Your task to perform on an android device: Go to Android settings Image 0: 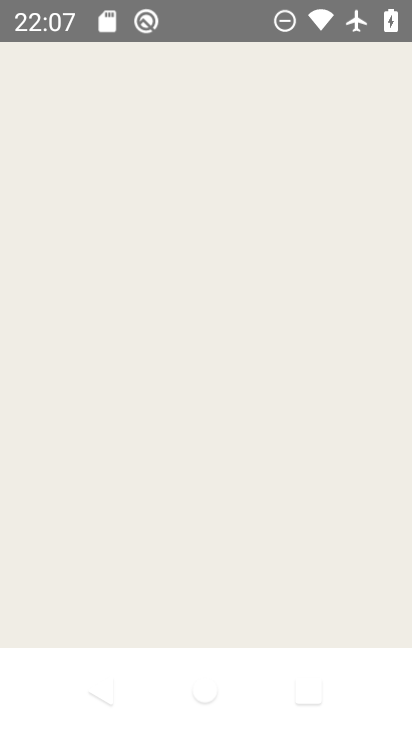
Step 0: press home button
Your task to perform on an android device: Go to Android settings Image 1: 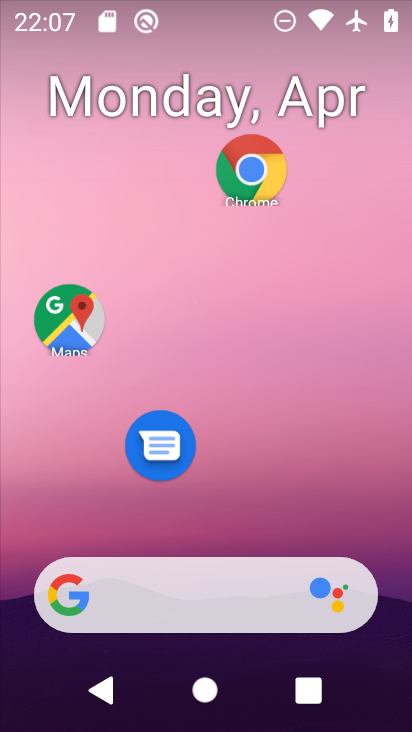
Step 1: drag from (215, 523) to (184, 115)
Your task to perform on an android device: Go to Android settings Image 2: 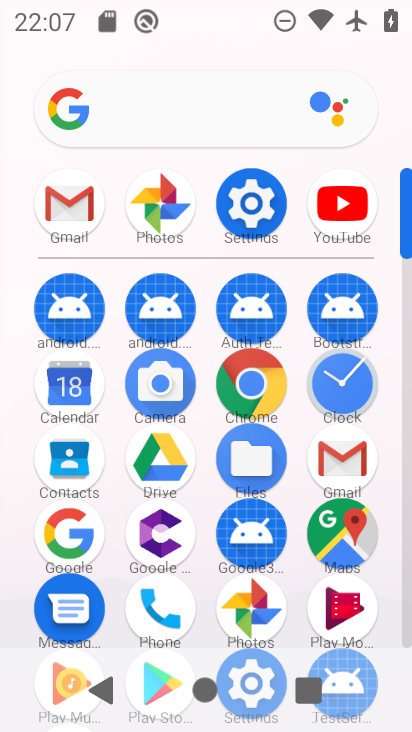
Step 2: click (243, 180)
Your task to perform on an android device: Go to Android settings Image 3: 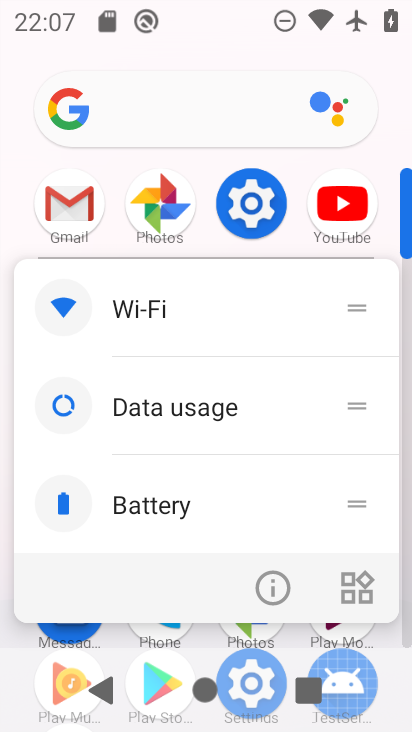
Step 3: click (244, 187)
Your task to perform on an android device: Go to Android settings Image 4: 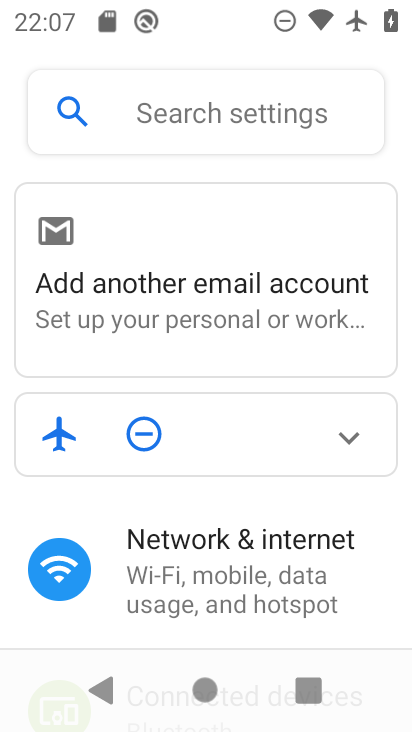
Step 4: click (169, 540)
Your task to perform on an android device: Go to Android settings Image 5: 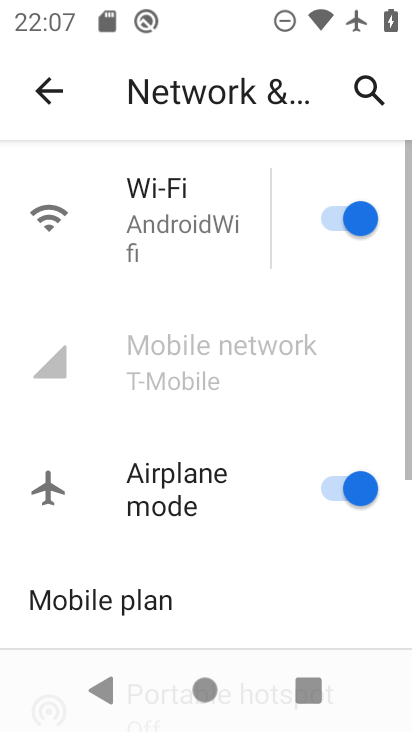
Step 5: click (114, 685)
Your task to perform on an android device: Go to Android settings Image 6: 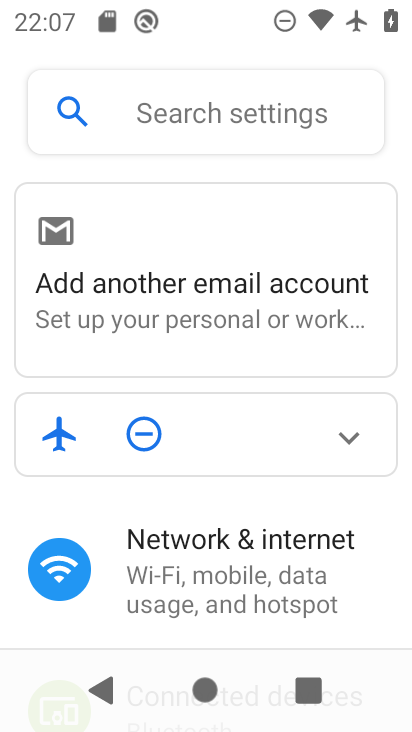
Step 6: drag from (224, 556) to (224, 176)
Your task to perform on an android device: Go to Android settings Image 7: 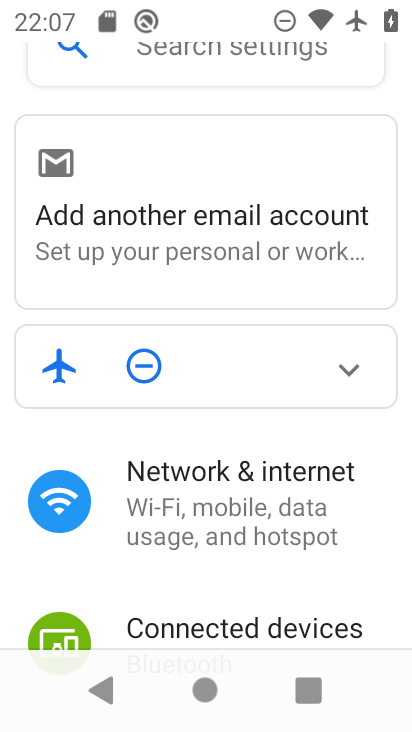
Step 7: drag from (220, 560) to (220, 122)
Your task to perform on an android device: Go to Android settings Image 8: 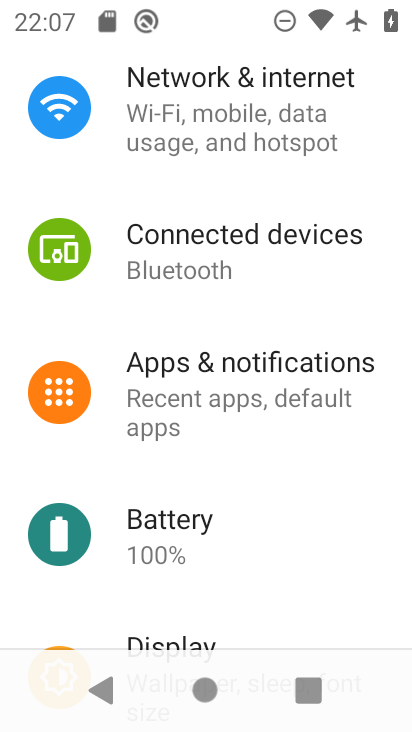
Step 8: drag from (211, 621) to (209, 150)
Your task to perform on an android device: Go to Android settings Image 9: 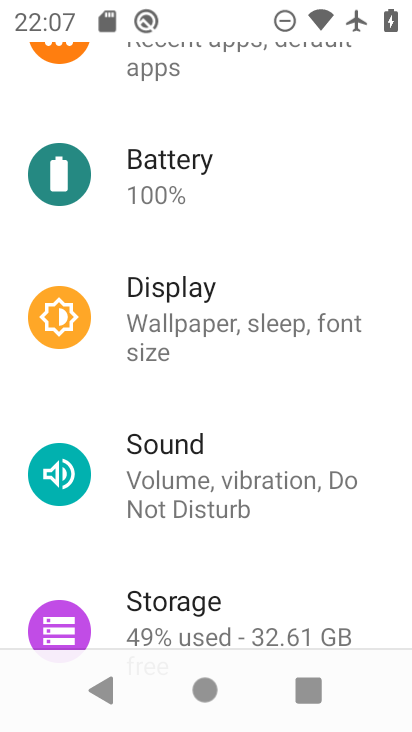
Step 9: drag from (248, 538) to (240, 159)
Your task to perform on an android device: Go to Android settings Image 10: 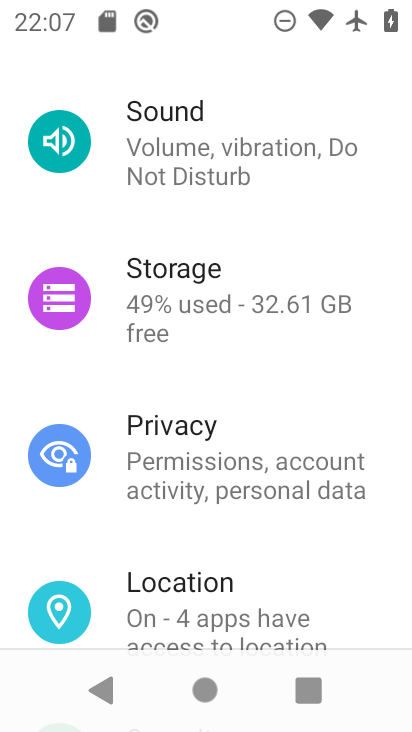
Step 10: drag from (235, 609) to (228, 200)
Your task to perform on an android device: Go to Android settings Image 11: 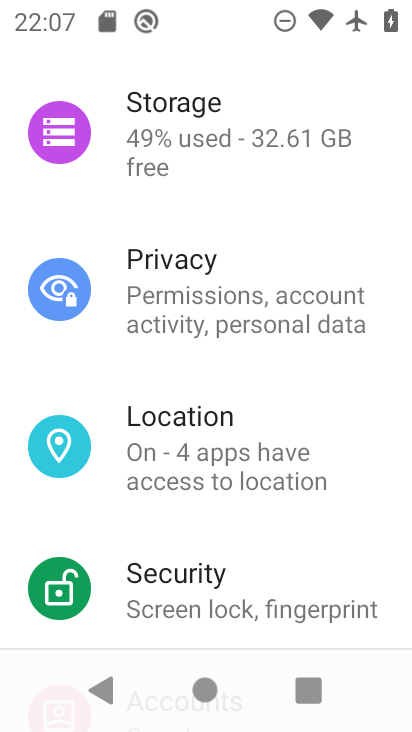
Step 11: drag from (233, 566) to (237, 216)
Your task to perform on an android device: Go to Android settings Image 12: 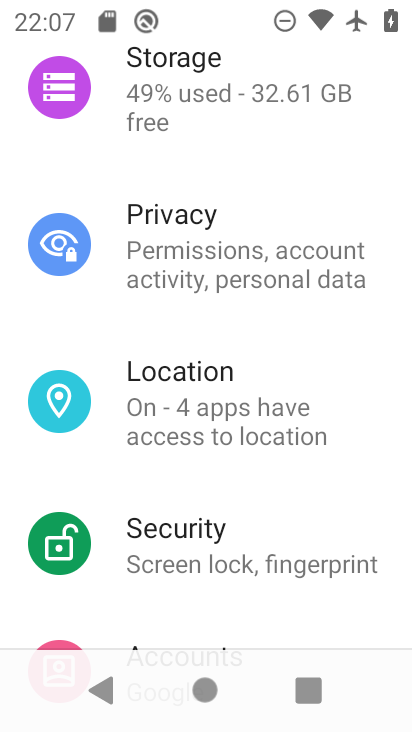
Step 12: drag from (217, 578) to (213, 217)
Your task to perform on an android device: Go to Android settings Image 13: 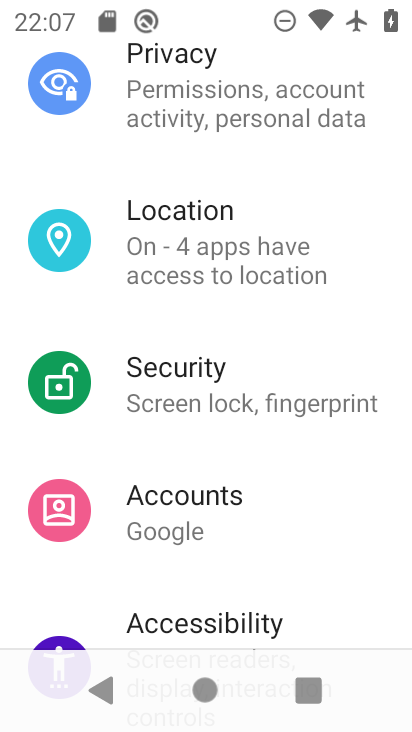
Step 13: drag from (225, 642) to (217, 283)
Your task to perform on an android device: Go to Android settings Image 14: 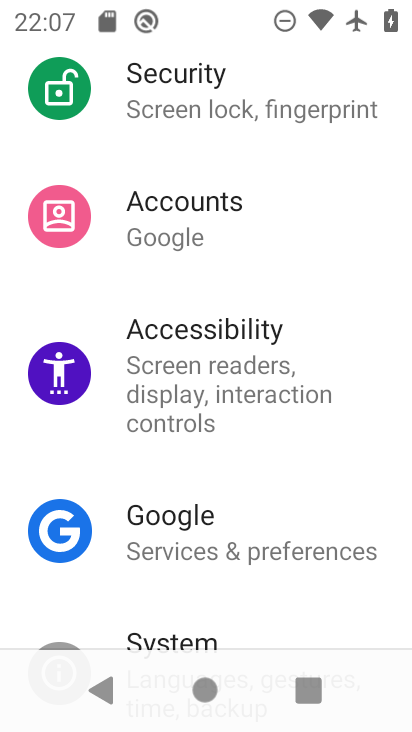
Step 14: drag from (211, 634) to (211, 135)
Your task to perform on an android device: Go to Android settings Image 15: 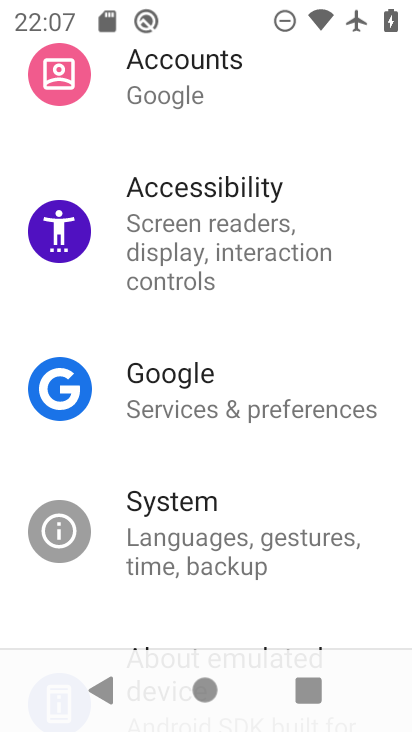
Step 15: drag from (217, 505) to (217, 149)
Your task to perform on an android device: Go to Android settings Image 16: 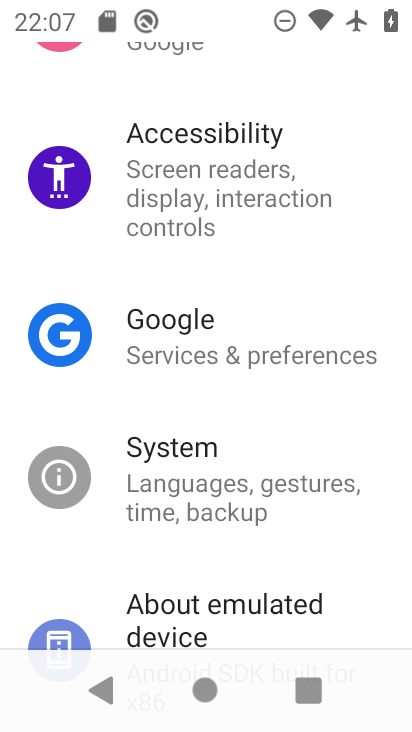
Step 16: click (218, 618)
Your task to perform on an android device: Go to Android settings Image 17: 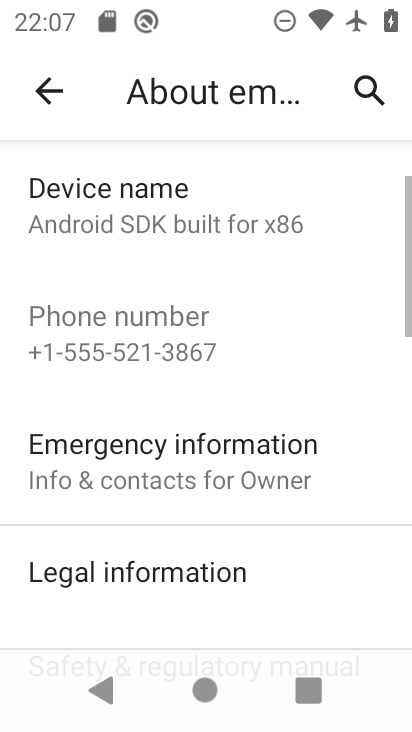
Step 17: task complete